Your task to perform on an android device: turn off wifi Image 0: 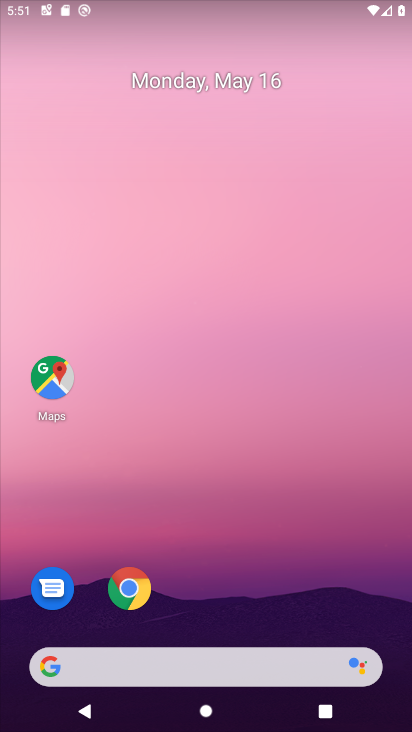
Step 0: click (130, 577)
Your task to perform on an android device: turn off wifi Image 1: 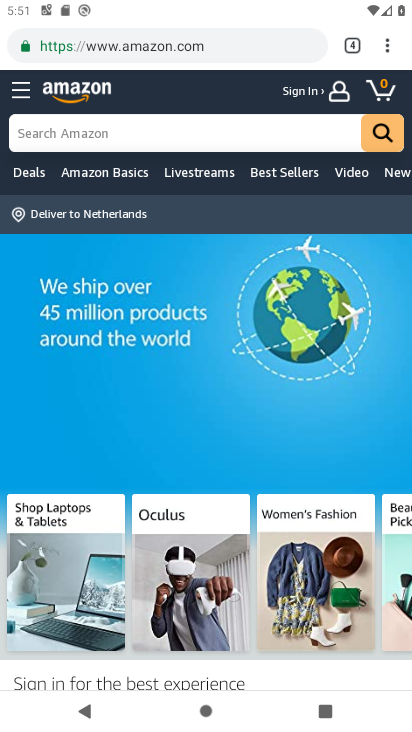
Step 1: press home button
Your task to perform on an android device: turn off wifi Image 2: 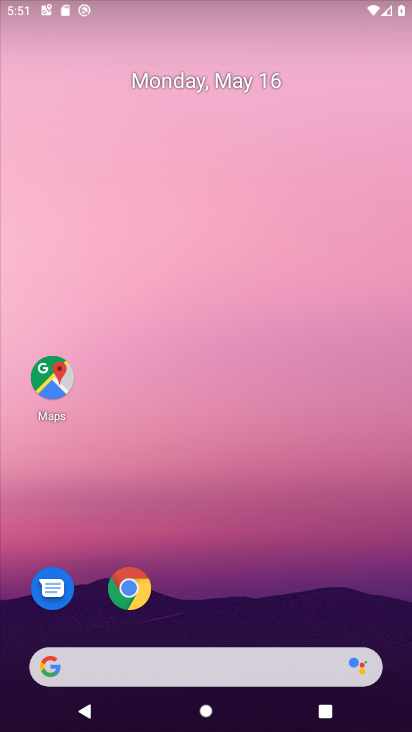
Step 2: drag from (239, 405) to (195, 0)
Your task to perform on an android device: turn off wifi Image 3: 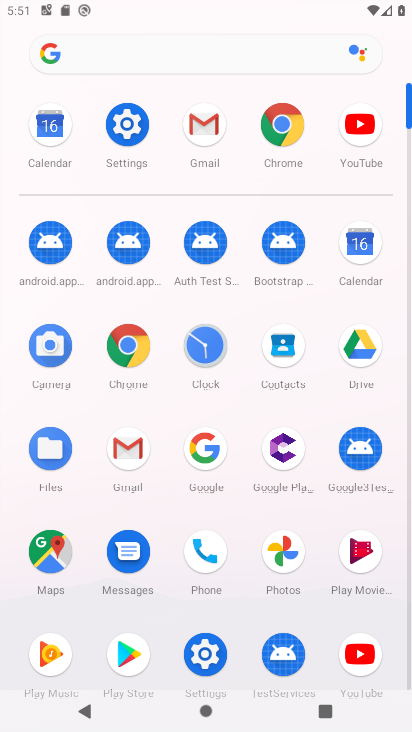
Step 3: click (125, 123)
Your task to perform on an android device: turn off wifi Image 4: 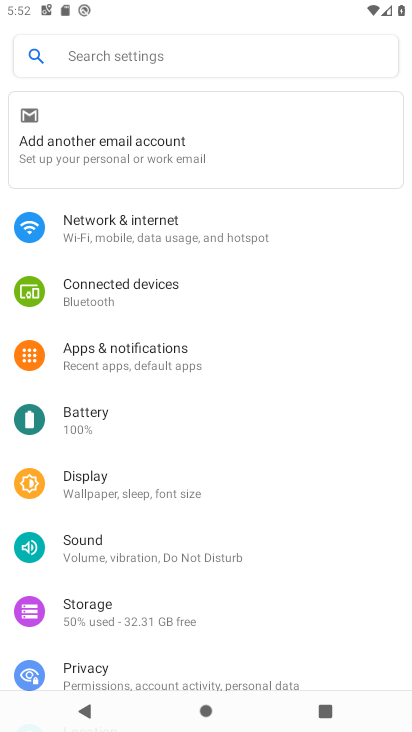
Step 4: click (209, 216)
Your task to perform on an android device: turn off wifi Image 5: 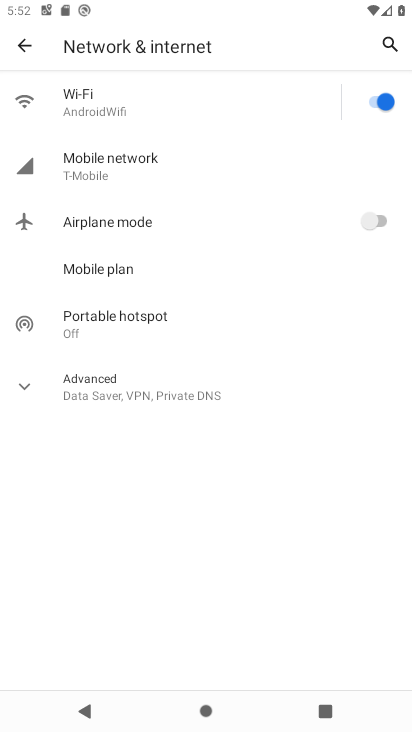
Step 5: click (375, 95)
Your task to perform on an android device: turn off wifi Image 6: 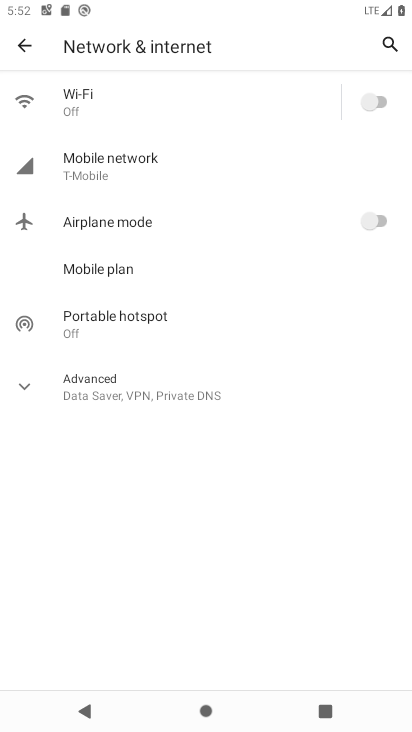
Step 6: task complete